Your task to perform on an android device: Open calendar and show me the fourth week of next month Image 0: 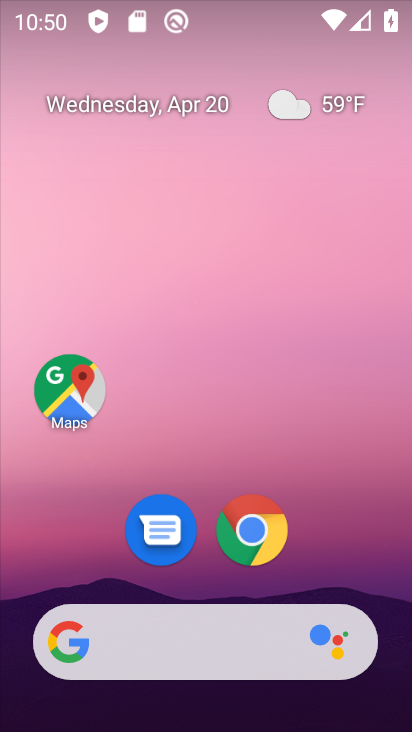
Step 0: drag from (351, 549) to (328, 31)
Your task to perform on an android device: Open calendar and show me the fourth week of next month Image 1: 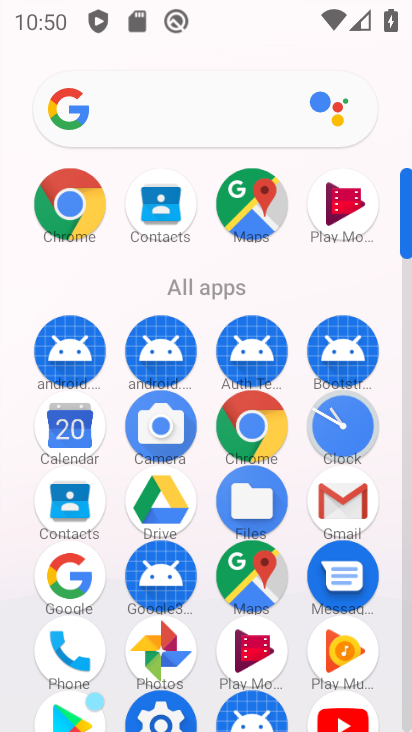
Step 1: click (402, 386)
Your task to perform on an android device: Open calendar and show me the fourth week of next month Image 2: 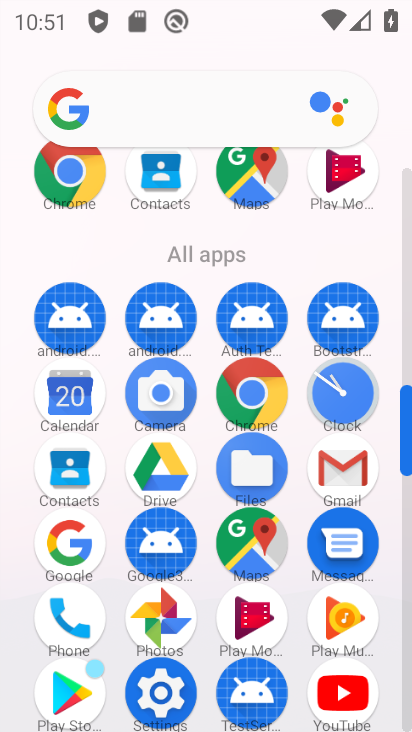
Step 2: drag from (400, 454) to (398, 510)
Your task to perform on an android device: Open calendar and show me the fourth week of next month Image 3: 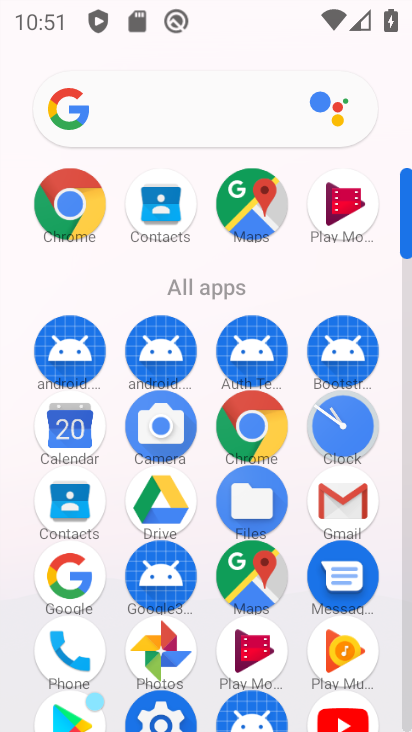
Step 3: click (403, 554)
Your task to perform on an android device: Open calendar and show me the fourth week of next month Image 4: 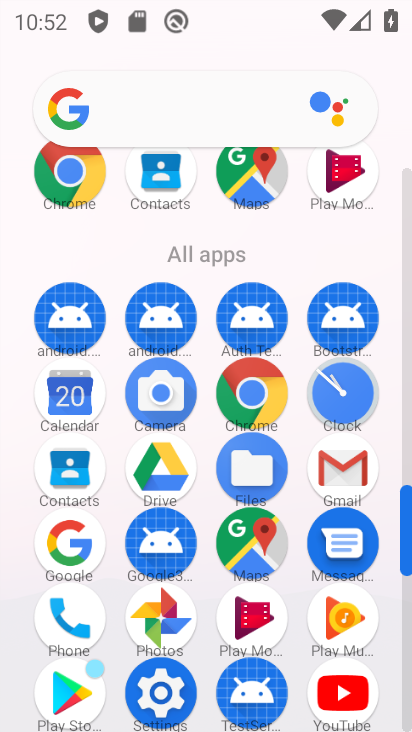
Step 4: click (63, 390)
Your task to perform on an android device: Open calendar and show me the fourth week of next month Image 5: 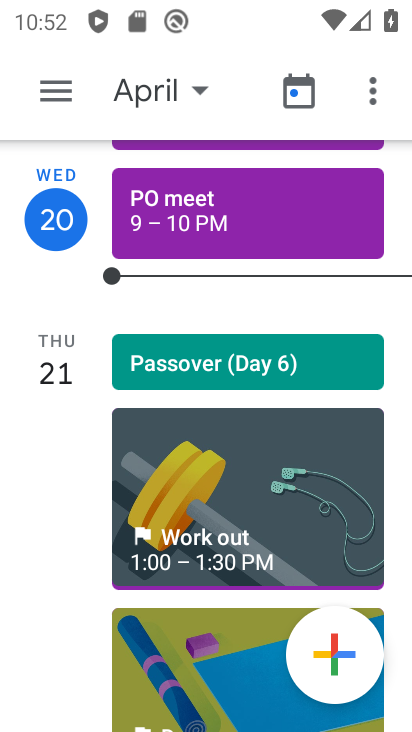
Step 5: click (192, 95)
Your task to perform on an android device: Open calendar and show me the fourth week of next month Image 6: 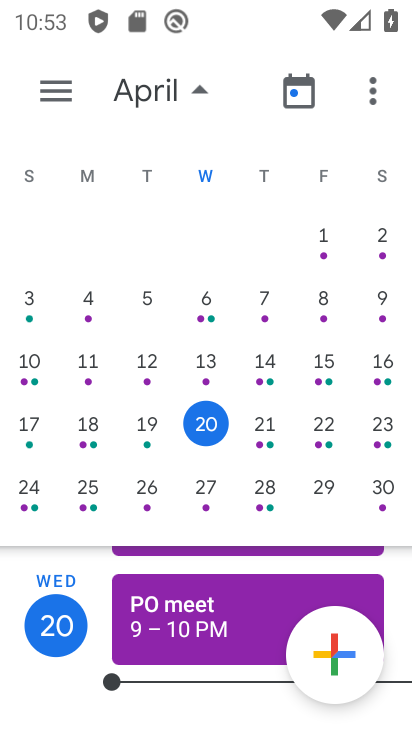
Step 6: drag from (358, 335) to (30, 355)
Your task to perform on an android device: Open calendar and show me the fourth week of next month Image 7: 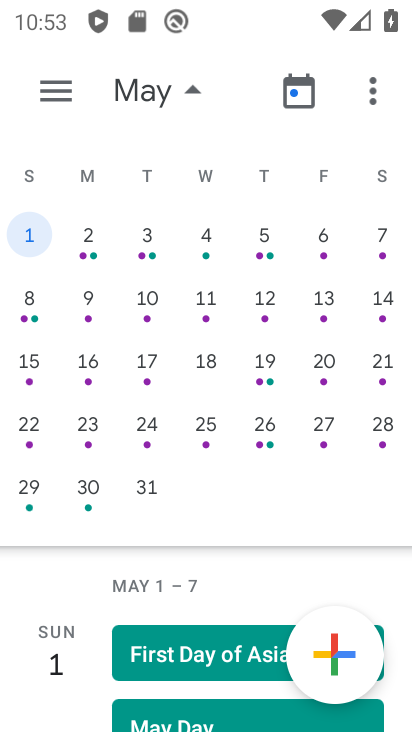
Step 7: click (29, 433)
Your task to perform on an android device: Open calendar and show me the fourth week of next month Image 8: 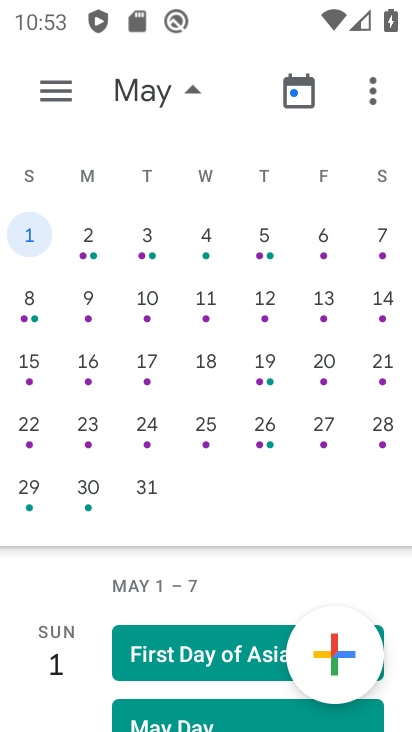
Step 8: task complete